Your task to perform on an android device: turn notification dots off Image 0: 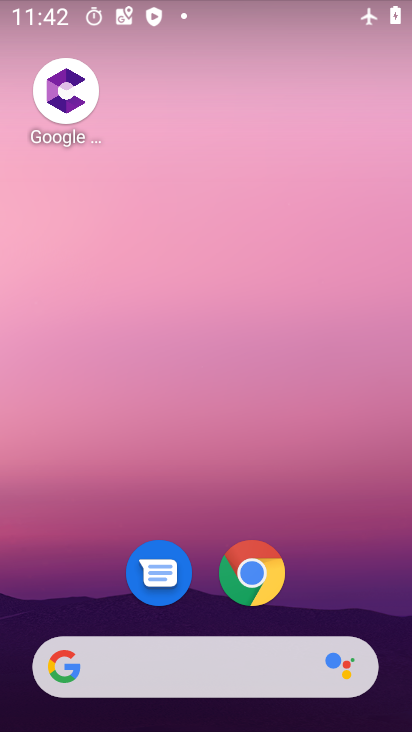
Step 0: drag from (281, 625) to (312, 199)
Your task to perform on an android device: turn notification dots off Image 1: 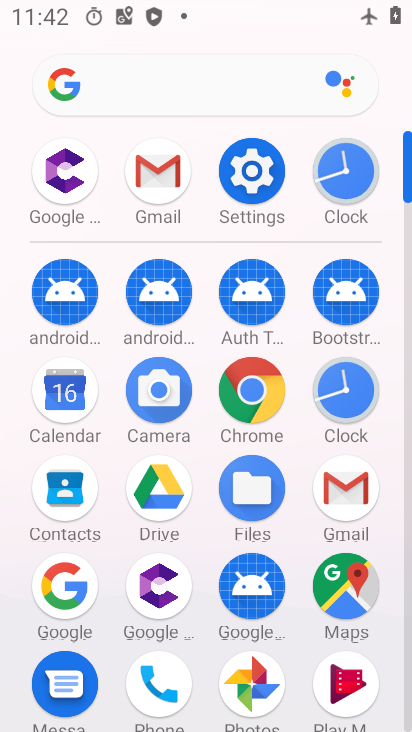
Step 1: click (237, 176)
Your task to perform on an android device: turn notification dots off Image 2: 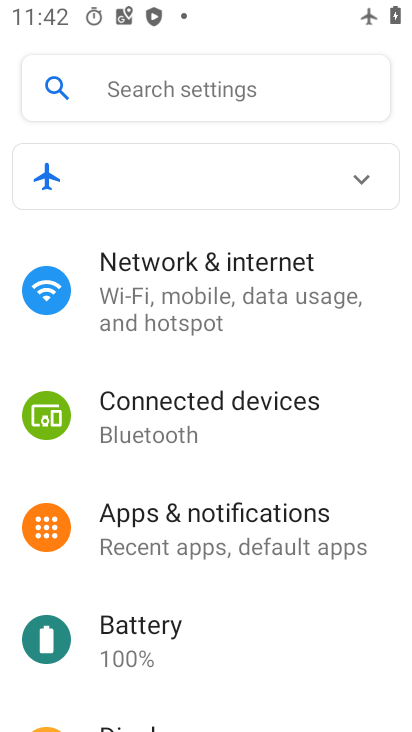
Step 2: click (308, 540)
Your task to perform on an android device: turn notification dots off Image 3: 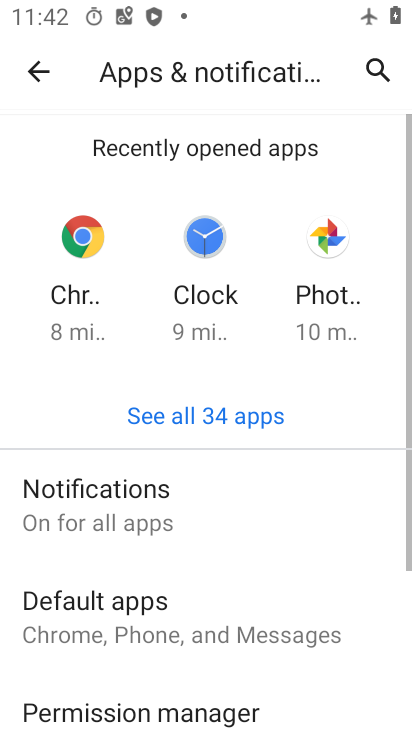
Step 3: click (212, 512)
Your task to perform on an android device: turn notification dots off Image 4: 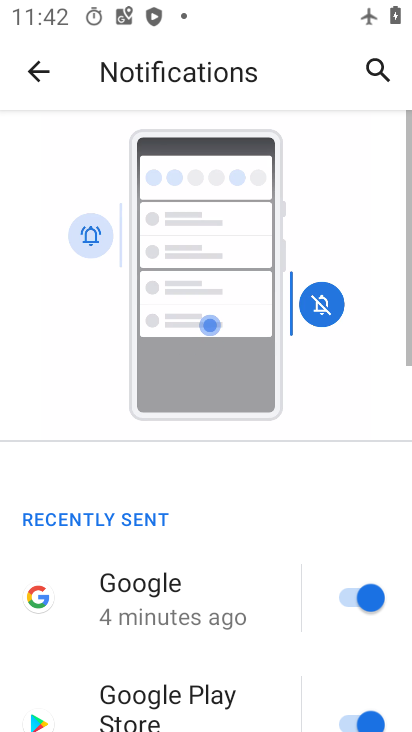
Step 4: drag from (260, 605) to (263, 141)
Your task to perform on an android device: turn notification dots off Image 5: 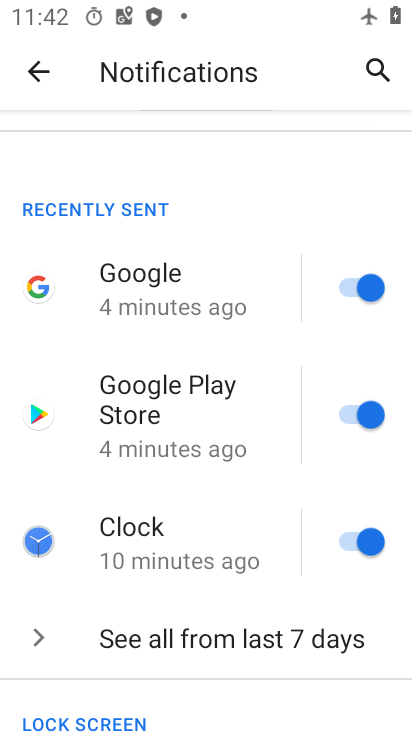
Step 5: drag from (269, 570) to (305, 198)
Your task to perform on an android device: turn notification dots off Image 6: 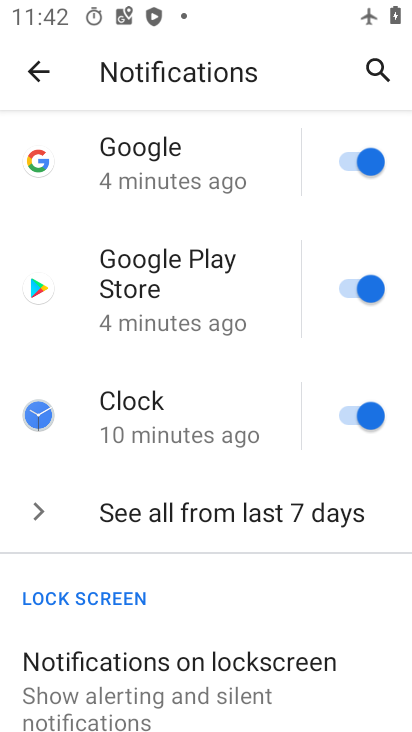
Step 6: click (224, 674)
Your task to perform on an android device: turn notification dots off Image 7: 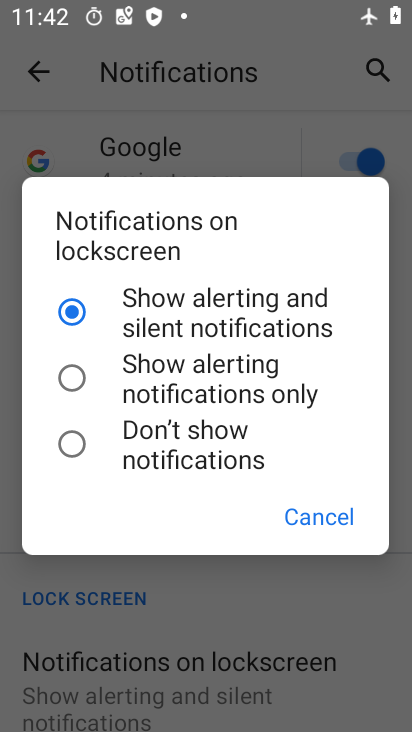
Step 7: click (315, 515)
Your task to perform on an android device: turn notification dots off Image 8: 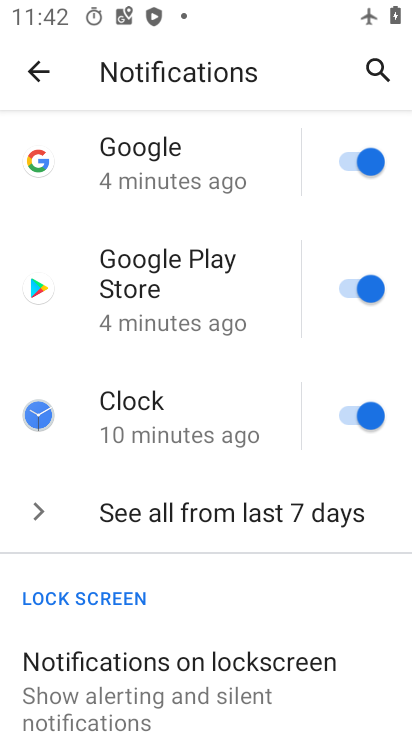
Step 8: drag from (273, 666) to (343, 162)
Your task to perform on an android device: turn notification dots off Image 9: 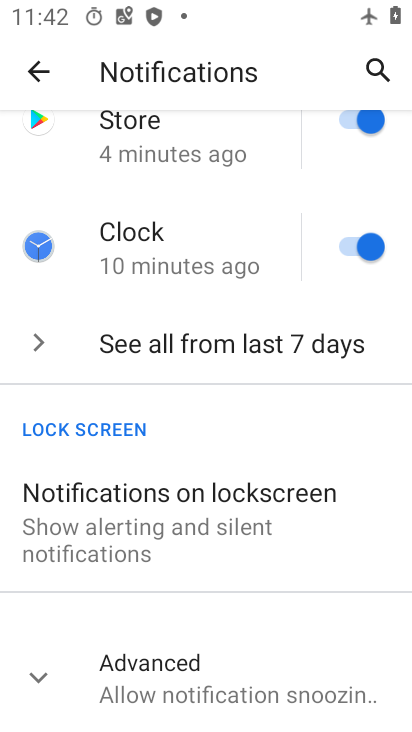
Step 9: click (279, 680)
Your task to perform on an android device: turn notification dots off Image 10: 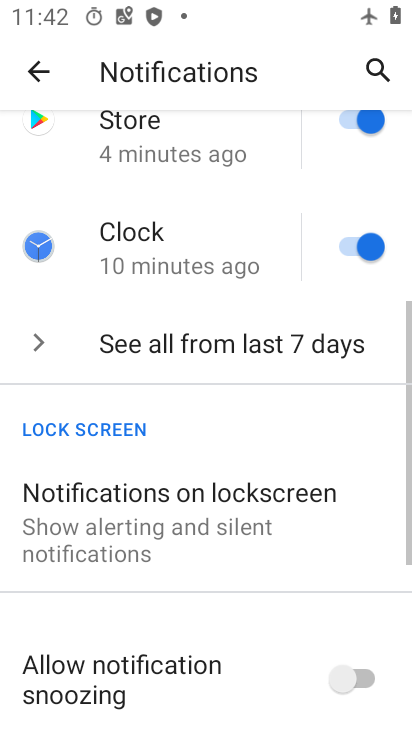
Step 10: task complete